Your task to perform on an android device: toggle notification dots Image 0: 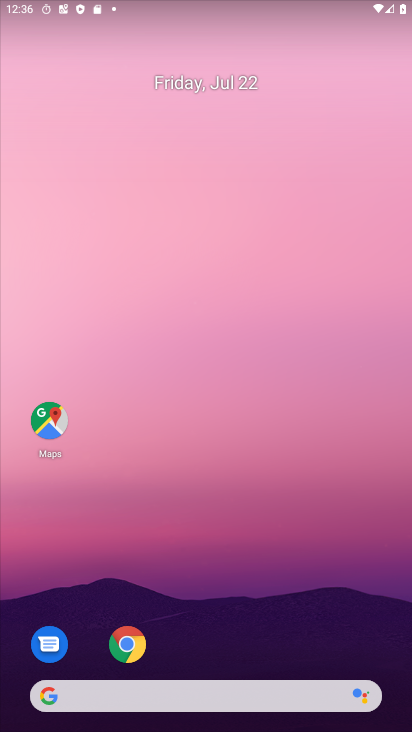
Step 0: drag from (235, 561) to (268, 171)
Your task to perform on an android device: toggle notification dots Image 1: 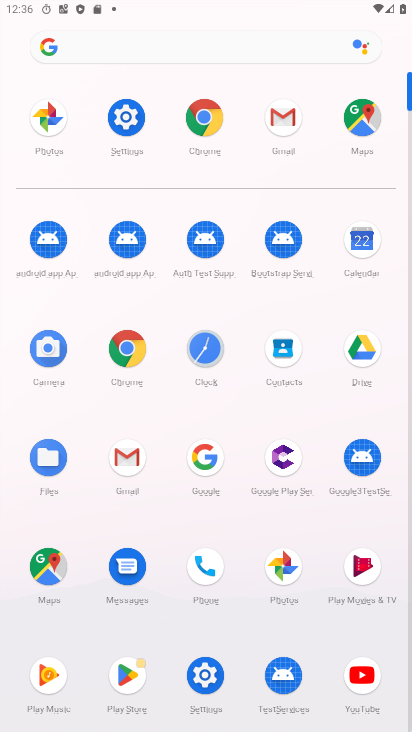
Step 1: click (138, 125)
Your task to perform on an android device: toggle notification dots Image 2: 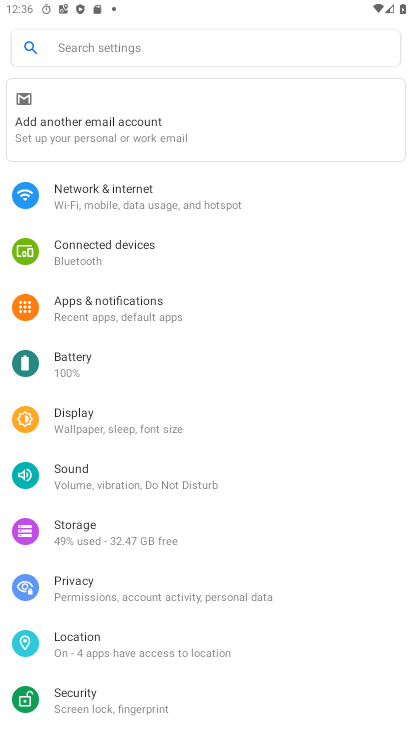
Step 2: click (167, 316)
Your task to perform on an android device: toggle notification dots Image 3: 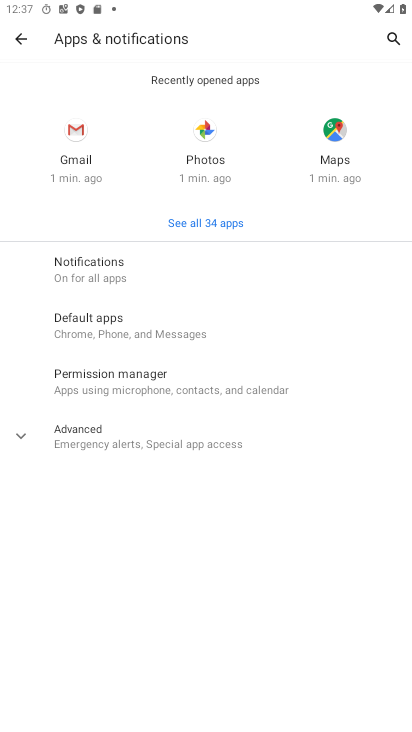
Step 3: click (147, 278)
Your task to perform on an android device: toggle notification dots Image 4: 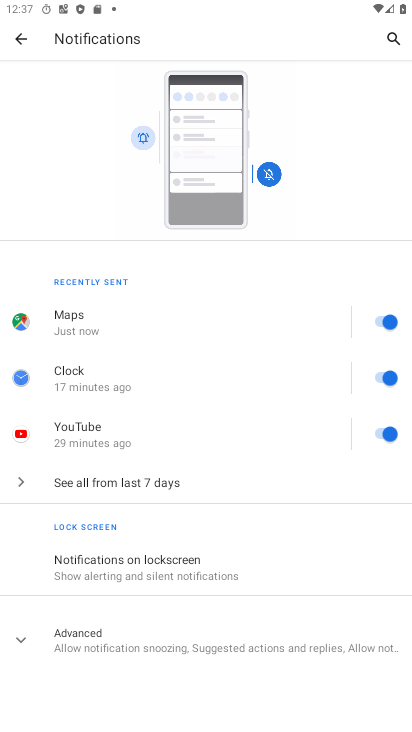
Step 4: click (130, 652)
Your task to perform on an android device: toggle notification dots Image 5: 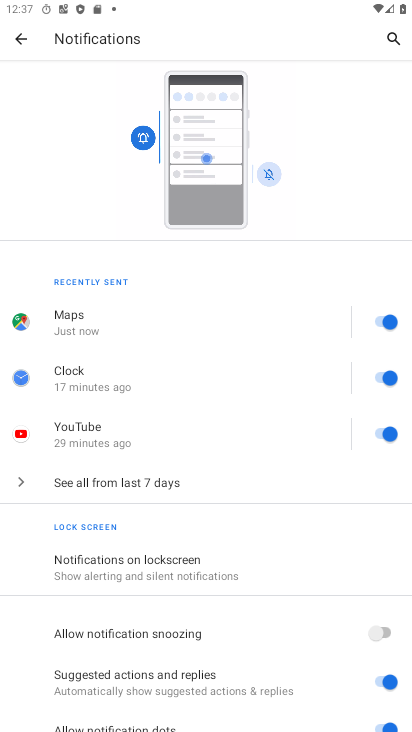
Step 5: drag from (157, 590) to (192, 243)
Your task to perform on an android device: toggle notification dots Image 6: 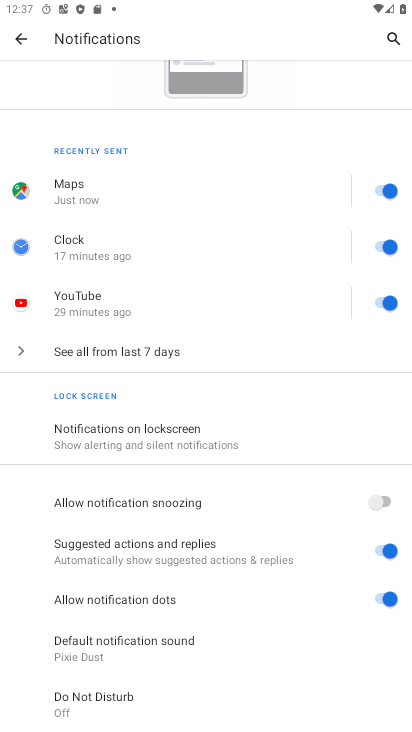
Step 6: click (369, 592)
Your task to perform on an android device: toggle notification dots Image 7: 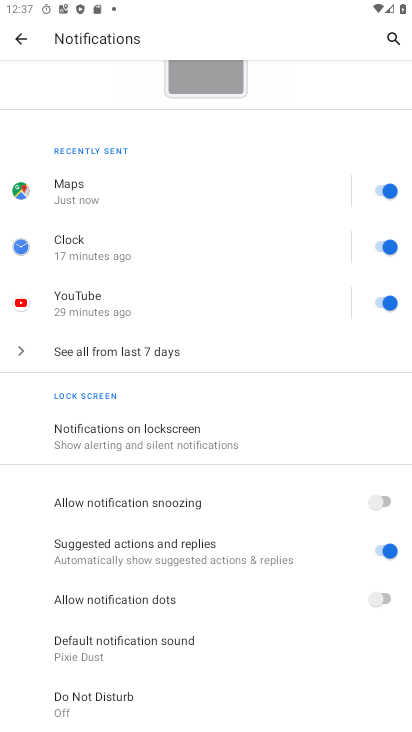
Step 7: task complete